Your task to perform on an android device: Clear the shopping cart on bestbuy.com. Add acer predator to the cart on bestbuy.com, then select checkout. Image 0: 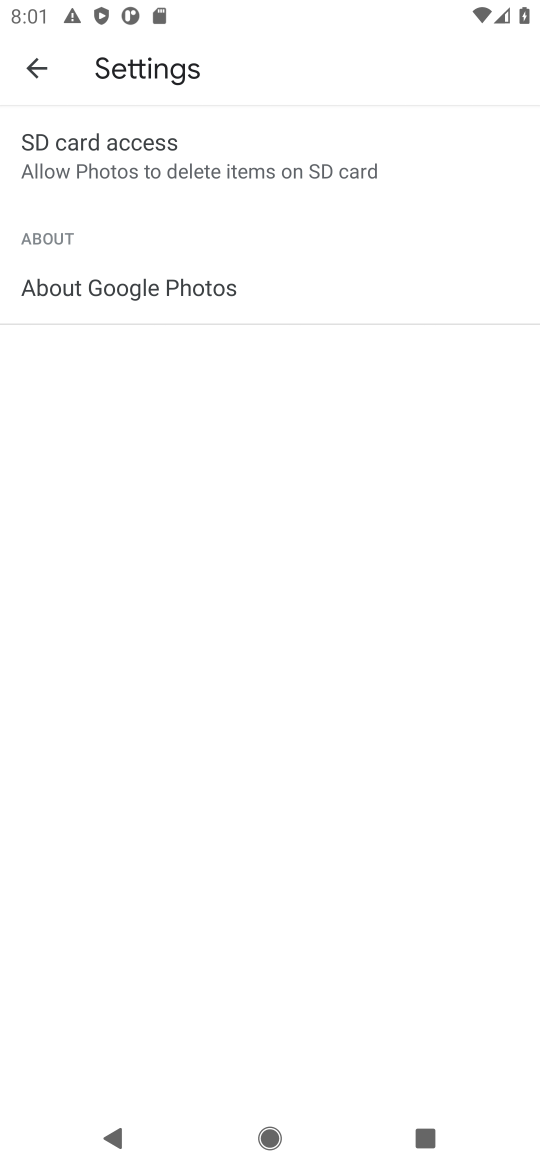
Step 0: press home button
Your task to perform on an android device: Clear the shopping cart on bestbuy.com. Add acer predator to the cart on bestbuy.com, then select checkout. Image 1: 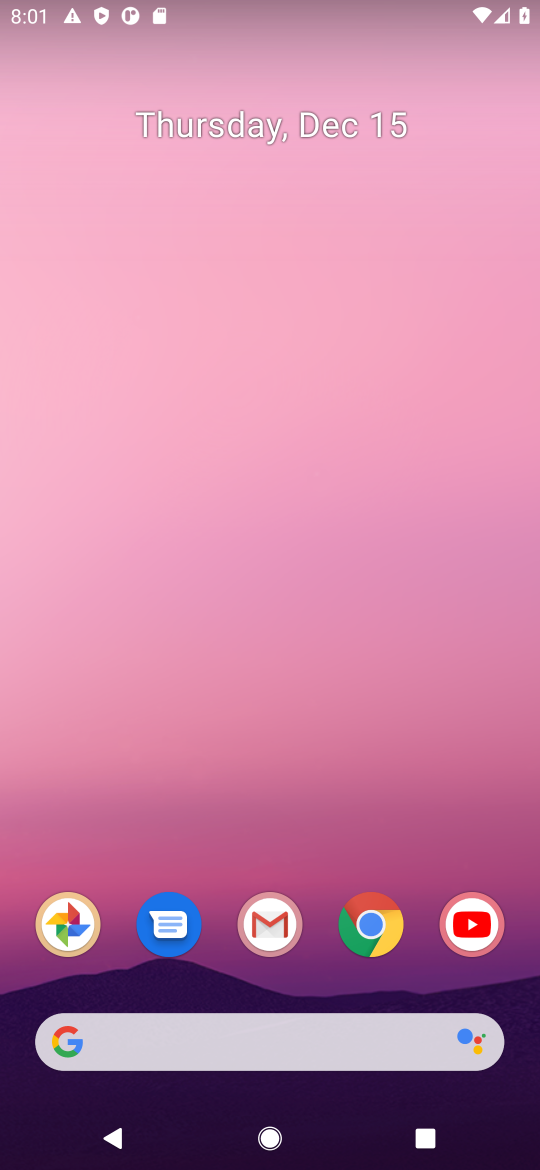
Step 1: click (376, 909)
Your task to perform on an android device: Clear the shopping cart on bestbuy.com. Add acer predator to the cart on bestbuy.com, then select checkout. Image 2: 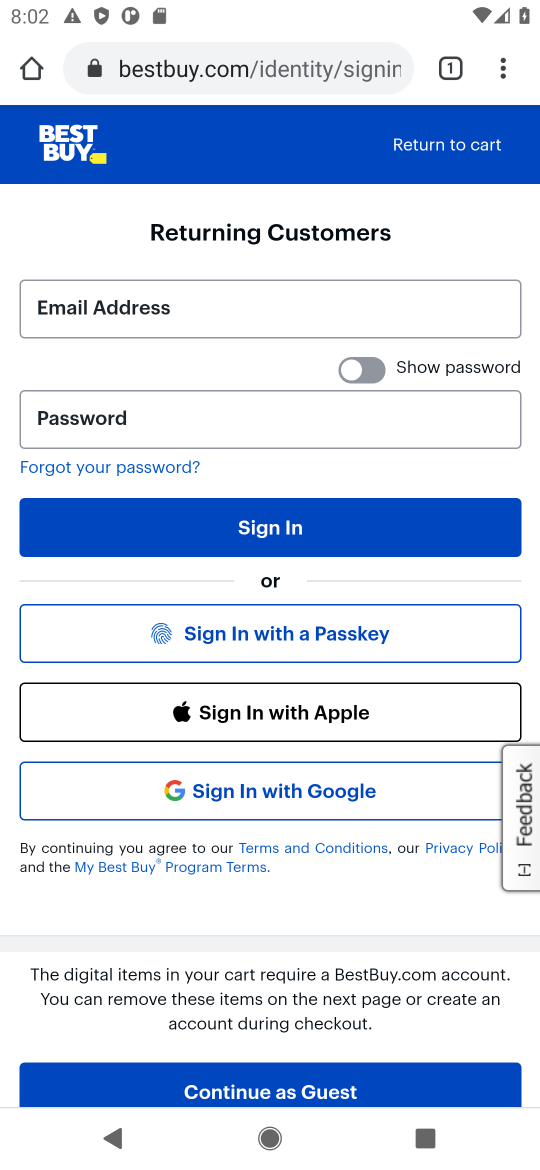
Step 2: click (460, 147)
Your task to perform on an android device: Clear the shopping cart on bestbuy.com. Add acer predator to the cart on bestbuy.com, then select checkout. Image 3: 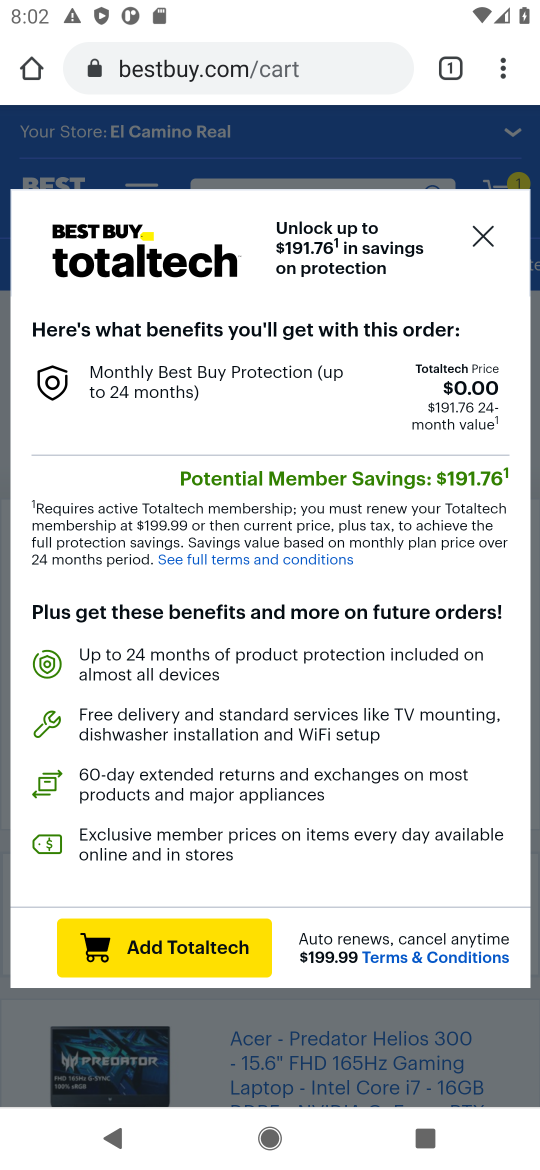
Step 3: click (485, 241)
Your task to perform on an android device: Clear the shopping cart on bestbuy.com. Add acer predator to the cart on bestbuy.com, then select checkout. Image 4: 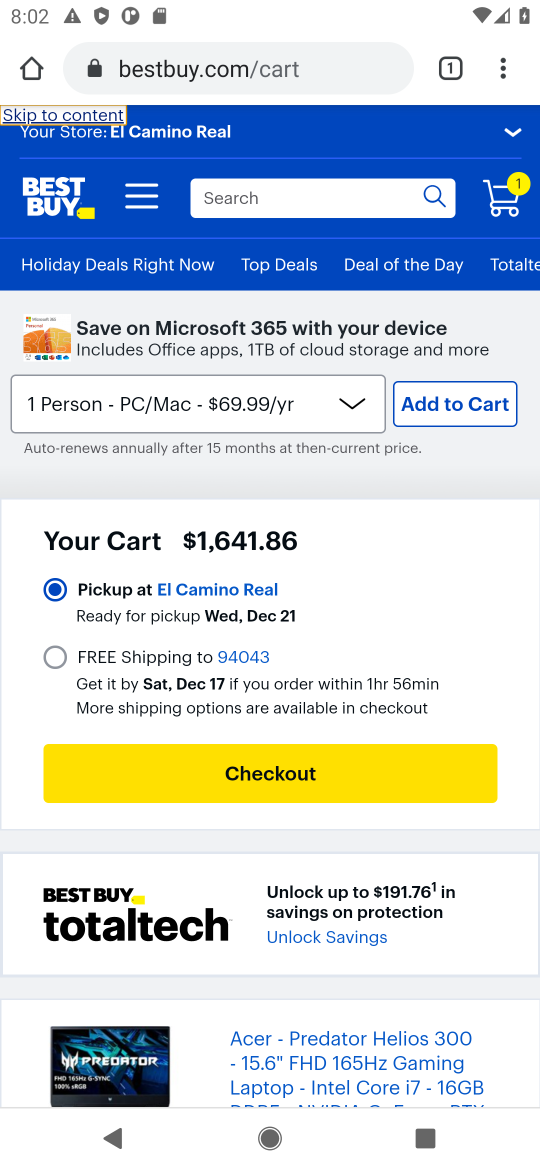
Step 4: drag from (235, 947) to (362, 18)
Your task to perform on an android device: Clear the shopping cart on bestbuy.com. Add acer predator to the cart on bestbuy.com, then select checkout. Image 5: 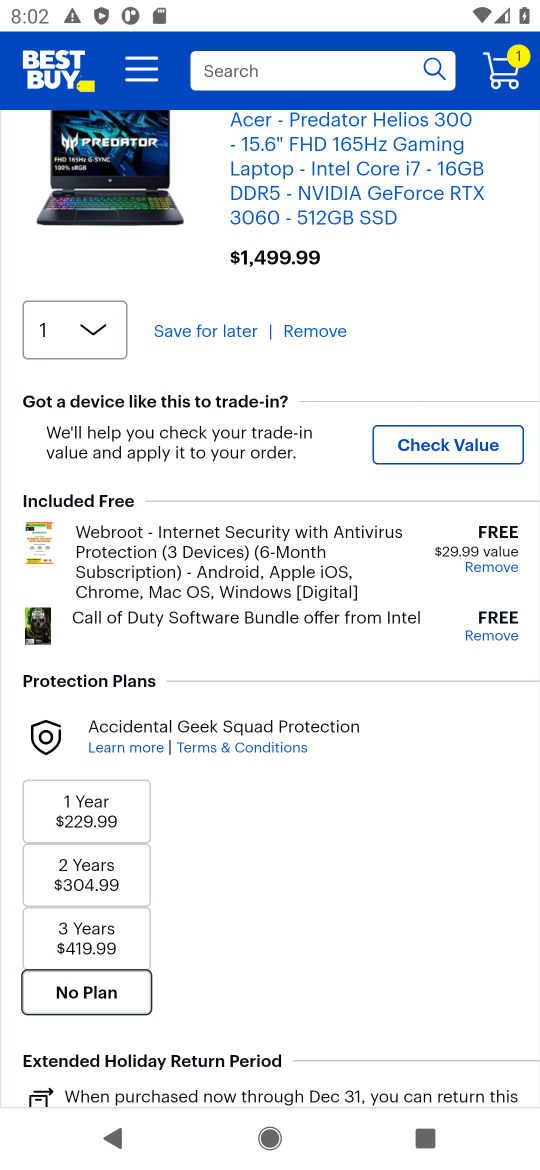
Step 5: click (315, 326)
Your task to perform on an android device: Clear the shopping cart on bestbuy.com. Add acer predator to the cart on bestbuy.com, then select checkout. Image 6: 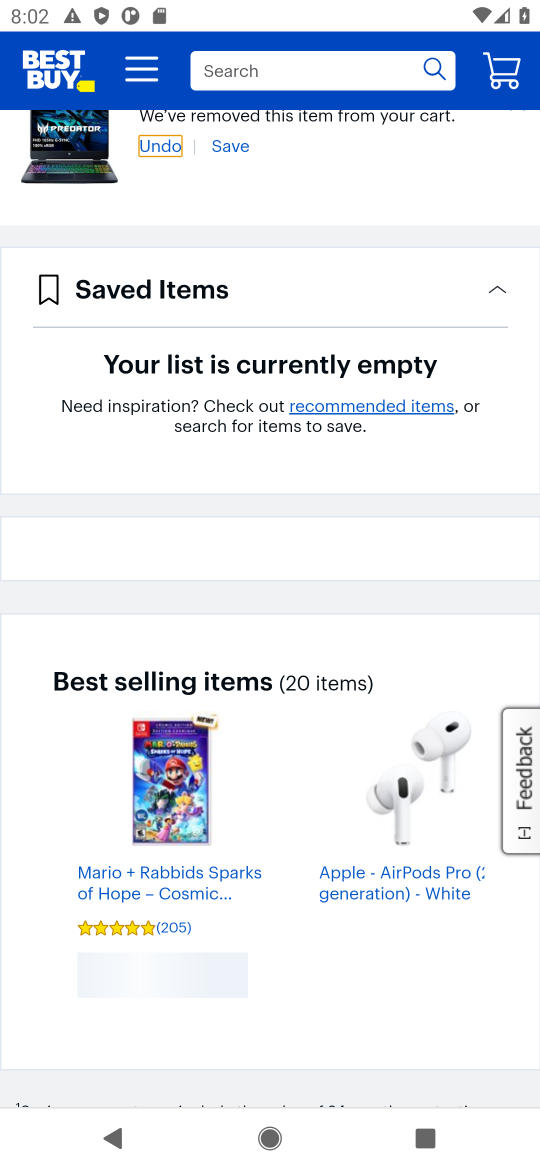
Step 6: click (285, 65)
Your task to perform on an android device: Clear the shopping cart on bestbuy.com. Add acer predator to the cart on bestbuy.com, then select checkout. Image 7: 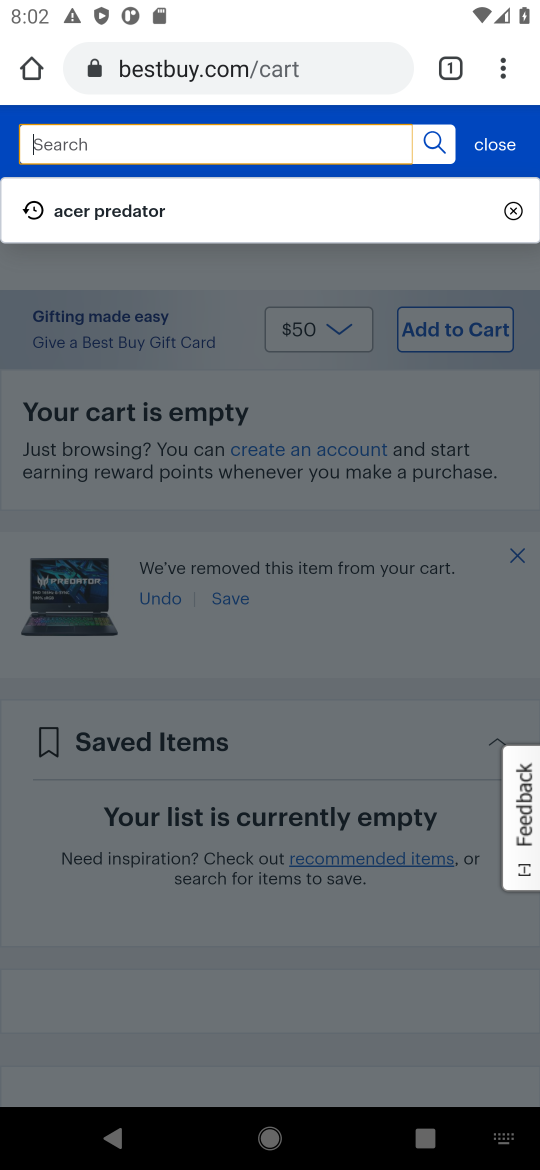
Step 7: type "acer predator"
Your task to perform on an android device: Clear the shopping cart on bestbuy.com. Add acer predator to the cart on bestbuy.com, then select checkout. Image 8: 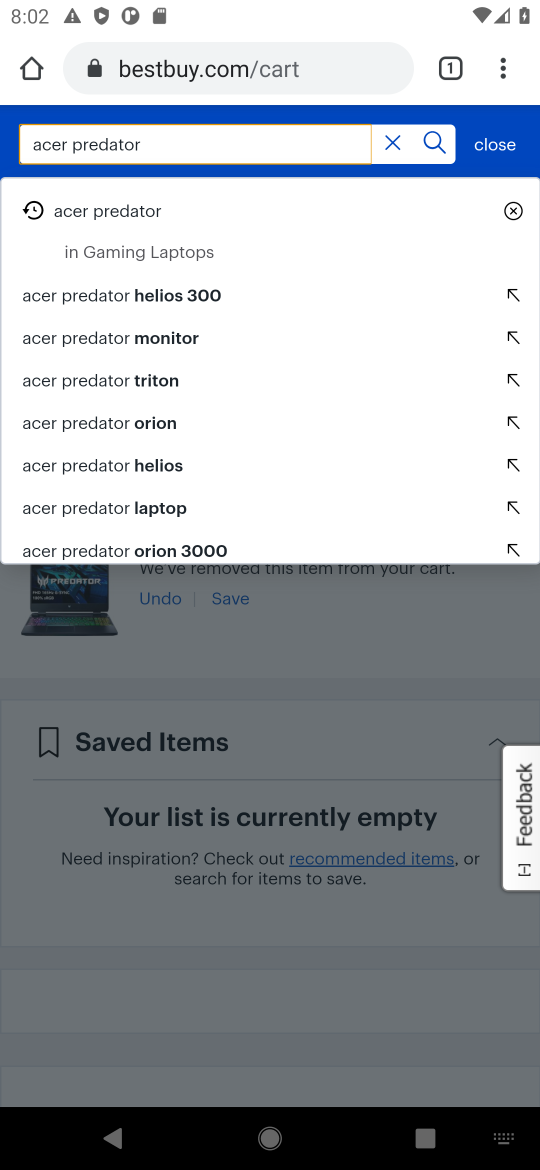
Step 8: click (434, 141)
Your task to perform on an android device: Clear the shopping cart on bestbuy.com. Add acer predator to the cart on bestbuy.com, then select checkout. Image 9: 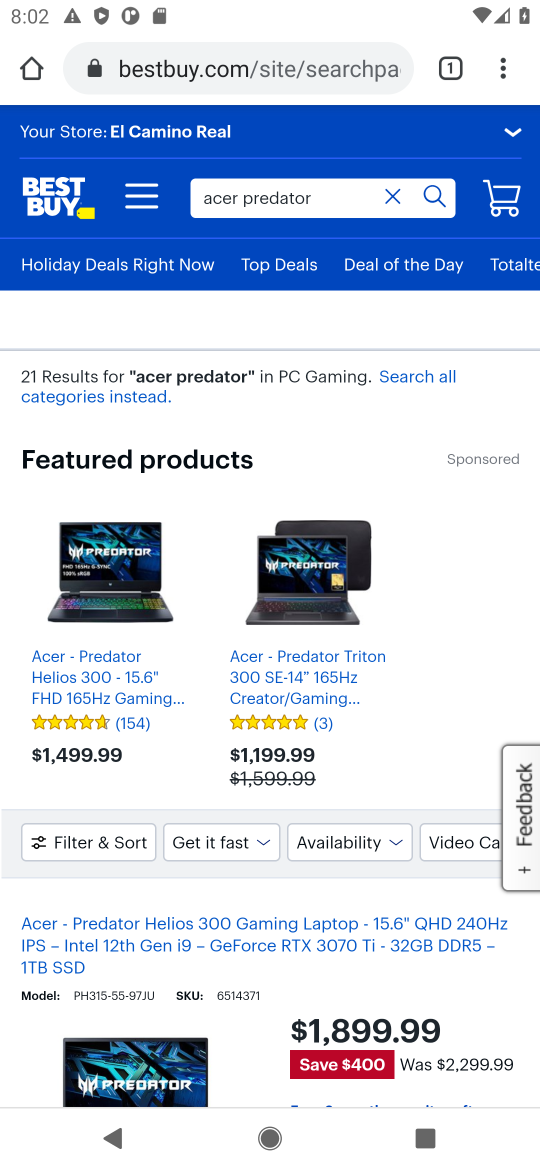
Step 9: click (72, 675)
Your task to perform on an android device: Clear the shopping cart on bestbuy.com. Add acer predator to the cart on bestbuy.com, then select checkout. Image 10: 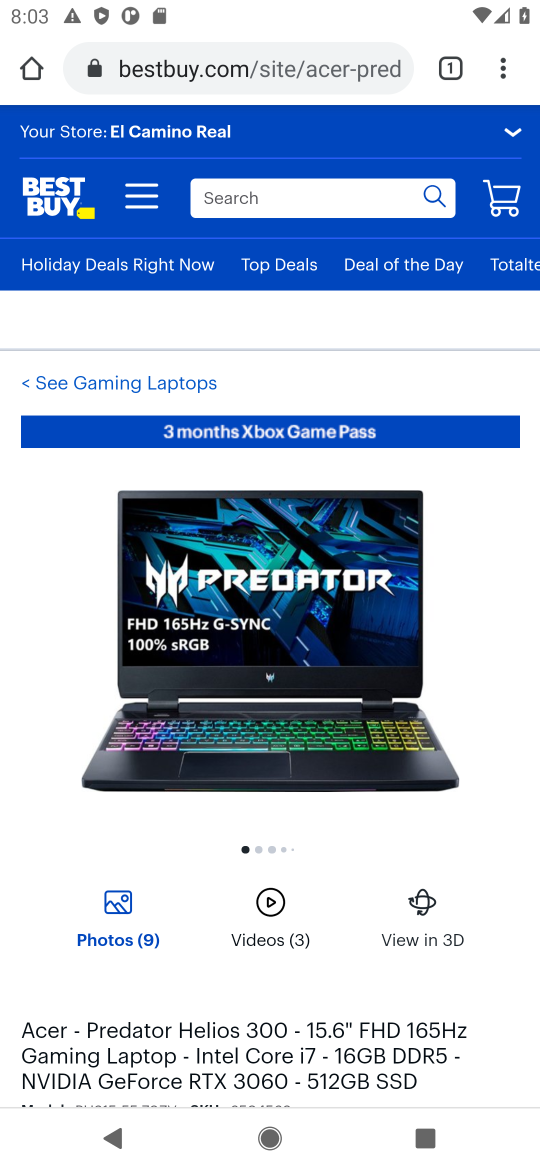
Step 10: drag from (169, 991) to (264, 230)
Your task to perform on an android device: Clear the shopping cart on bestbuy.com. Add acer predator to the cart on bestbuy.com, then select checkout. Image 11: 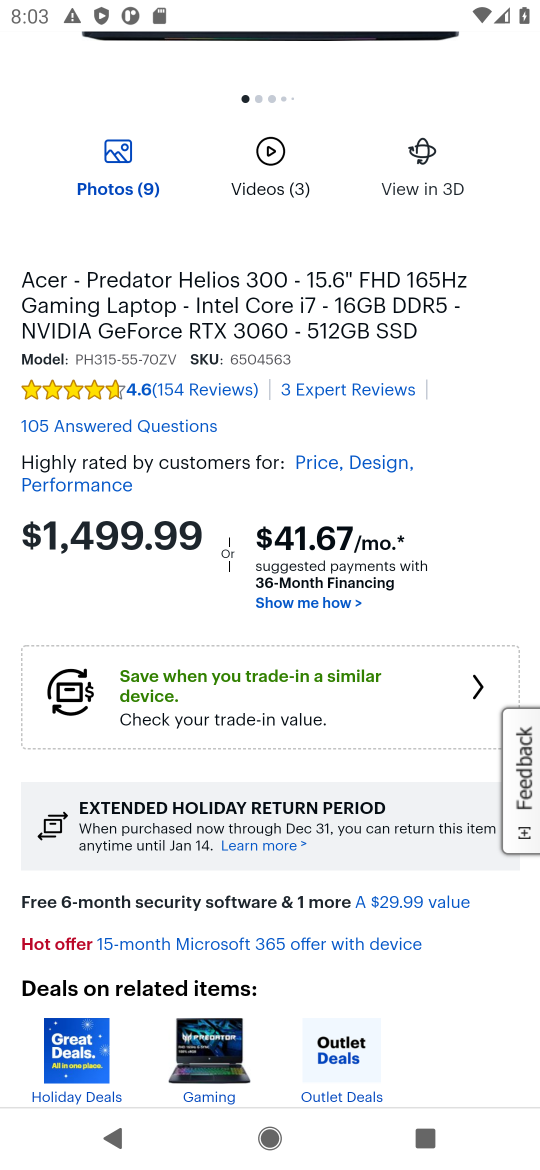
Step 11: drag from (148, 772) to (253, 55)
Your task to perform on an android device: Clear the shopping cart on bestbuy.com. Add acer predator to the cart on bestbuy.com, then select checkout. Image 12: 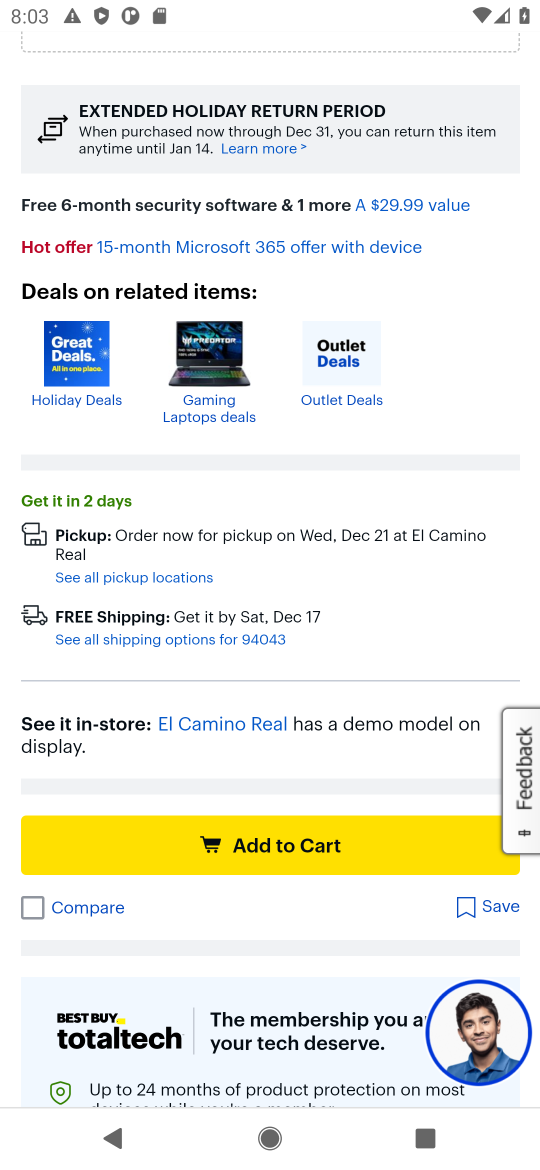
Step 12: click (302, 843)
Your task to perform on an android device: Clear the shopping cart on bestbuy.com. Add acer predator to the cart on bestbuy.com, then select checkout. Image 13: 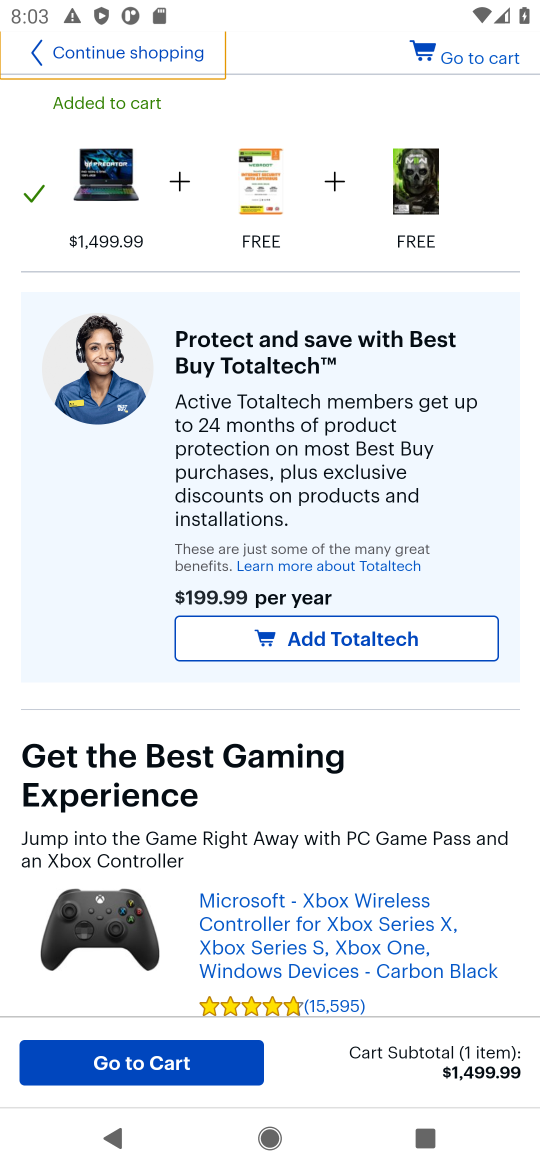
Step 13: click (137, 1069)
Your task to perform on an android device: Clear the shopping cart on bestbuy.com. Add acer predator to the cart on bestbuy.com, then select checkout. Image 14: 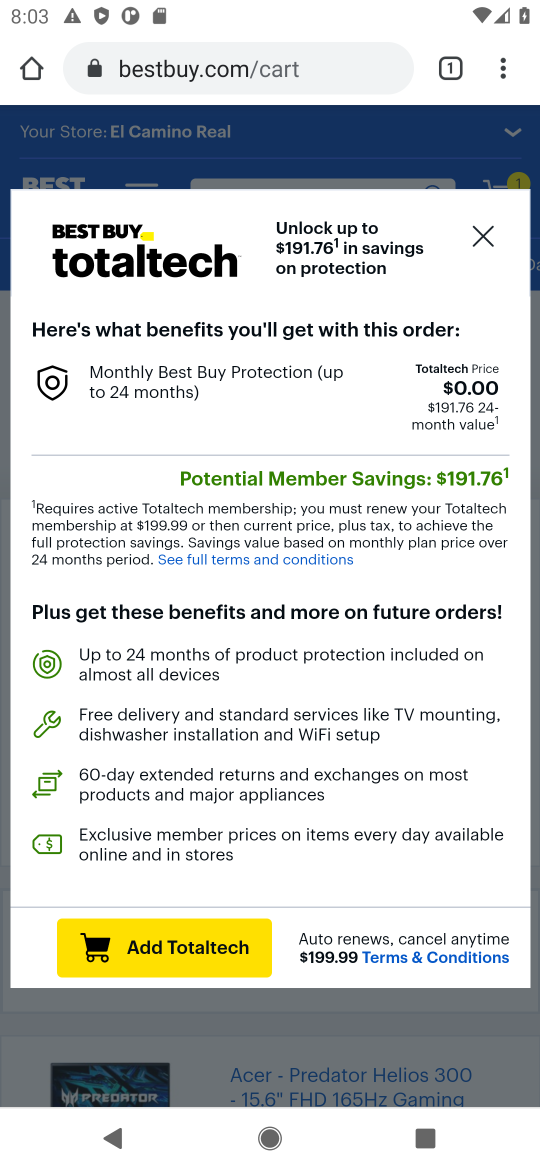
Step 14: click (494, 236)
Your task to perform on an android device: Clear the shopping cart on bestbuy.com. Add acer predator to the cart on bestbuy.com, then select checkout. Image 15: 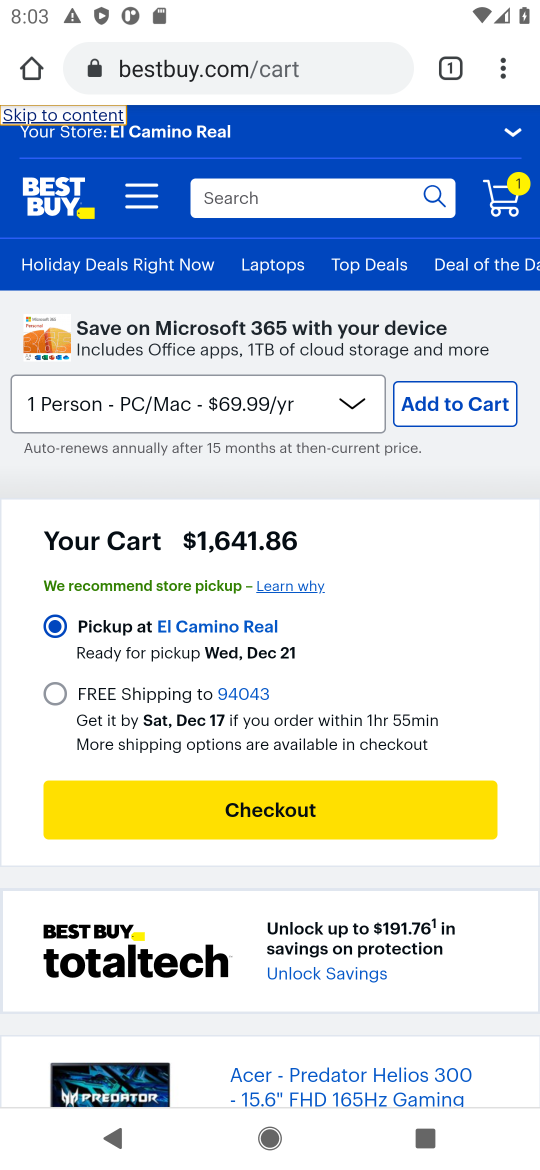
Step 15: click (327, 827)
Your task to perform on an android device: Clear the shopping cart on bestbuy.com. Add acer predator to the cart on bestbuy.com, then select checkout. Image 16: 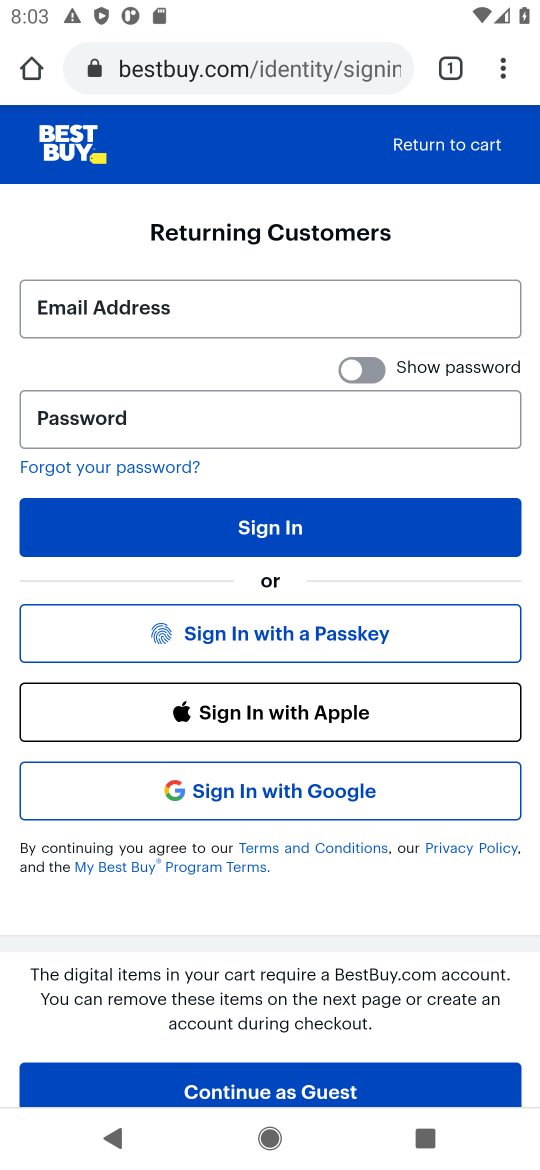
Step 16: task complete